Your task to perform on an android device: check data usage Image 0: 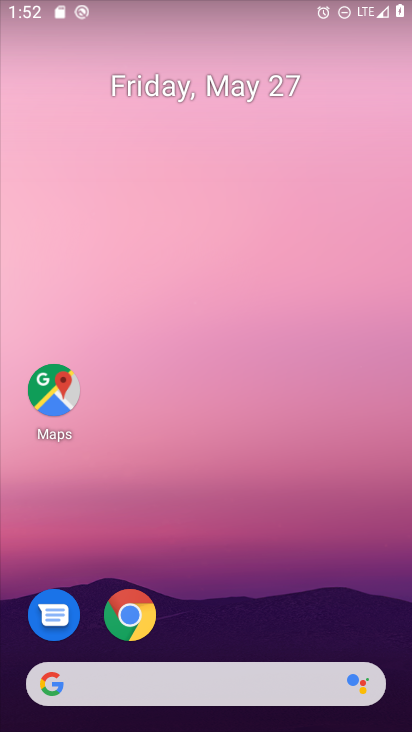
Step 0: drag from (263, 584) to (289, 5)
Your task to perform on an android device: check data usage Image 1: 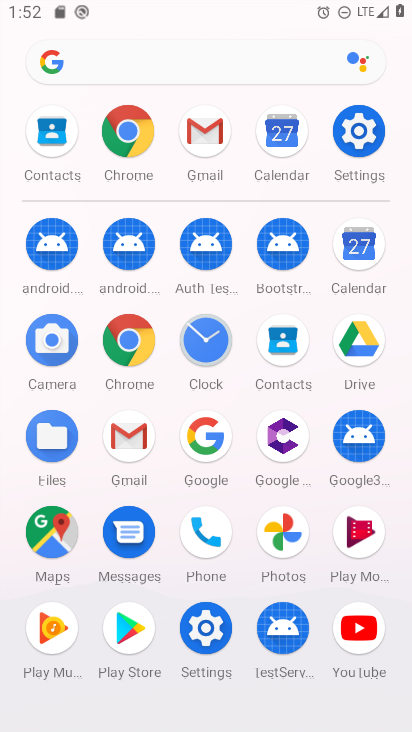
Step 1: click (365, 147)
Your task to perform on an android device: check data usage Image 2: 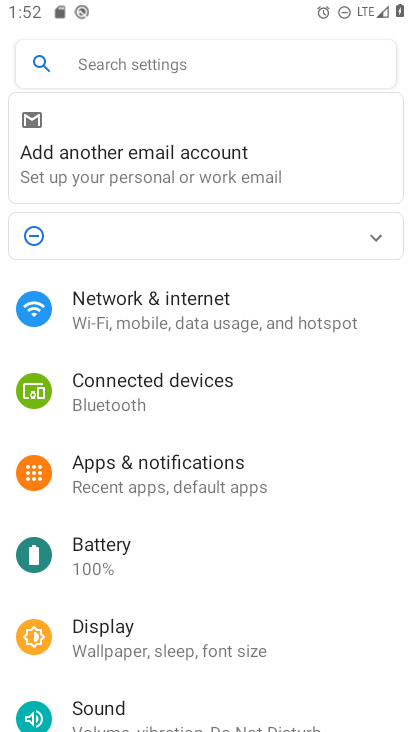
Step 2: drag from (116, 703) to (141, 543)
Your task to perform on an android device: check data usage Image 3: 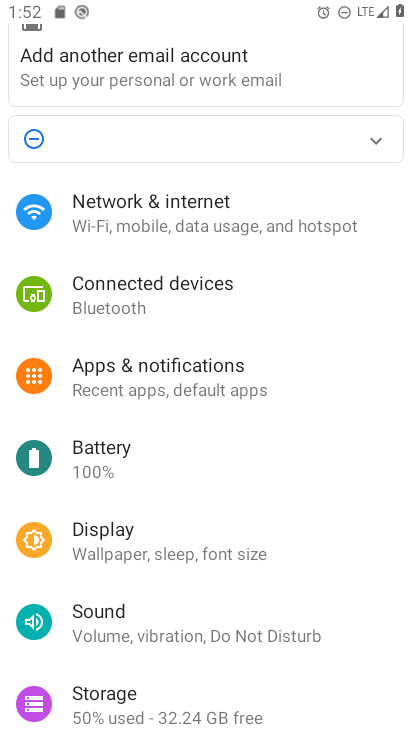
Step 3: drag from (270, 634) to (267, 526)
Your task to perform on an android device: check data usage Image 4: 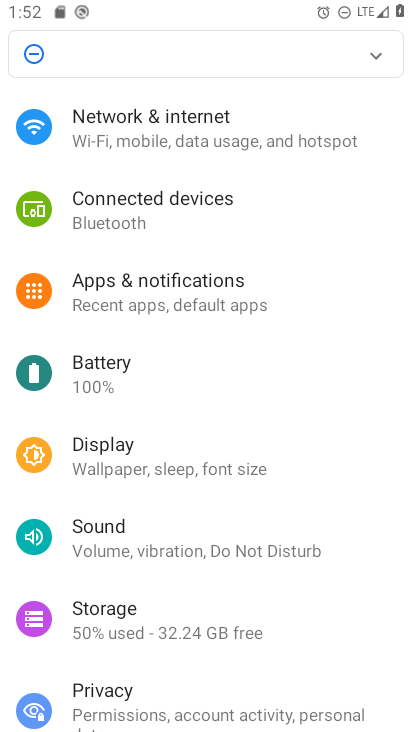
Step 4: click (211, 126)
Your task to perform on an android device: check data usage Image 5: 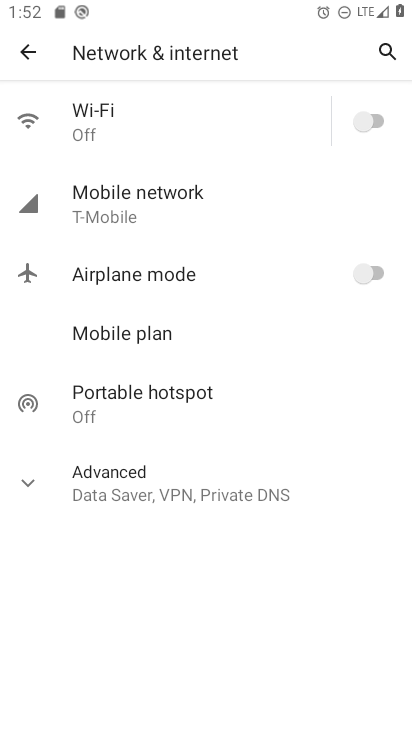
Step 5: click (189, 181)
Your task to perform on an android device: check data usage Image 6: 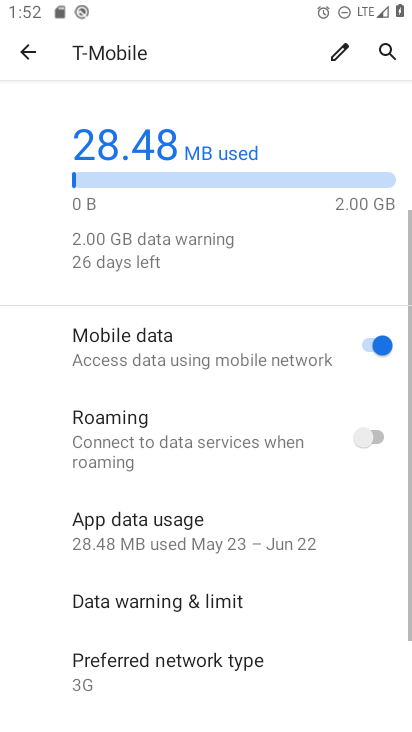
Step 6: task complete